Your task to perform on an android device: toggle location history Image 0: 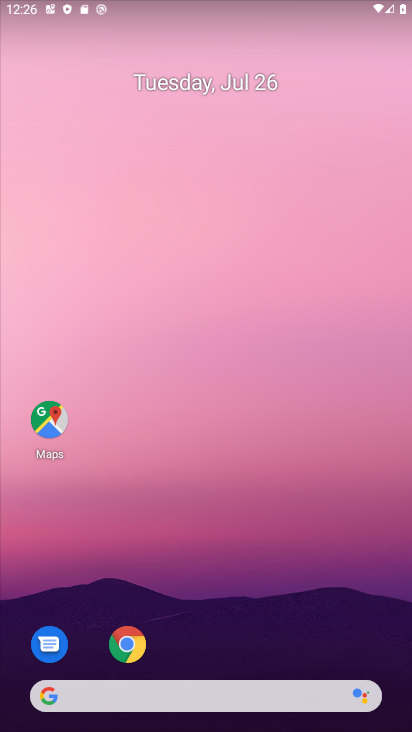
Step 0: drag from (302, 645) to (247, 58)
Your task to perform on an android device: toggle location history Image 1: 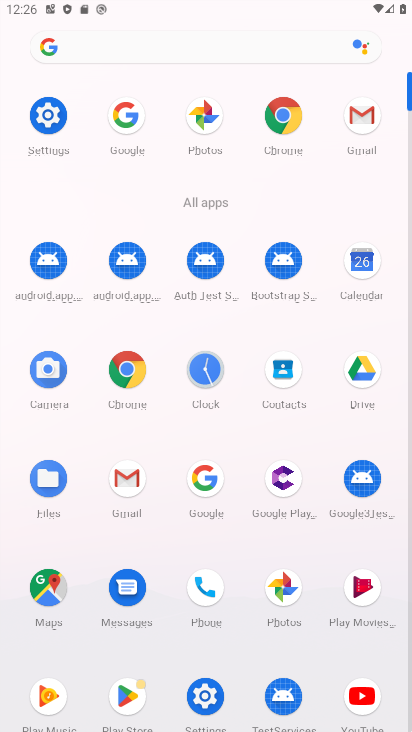
Step 1: click (48, 99)
Your task to perform on an android device: toggle location history Image 2: 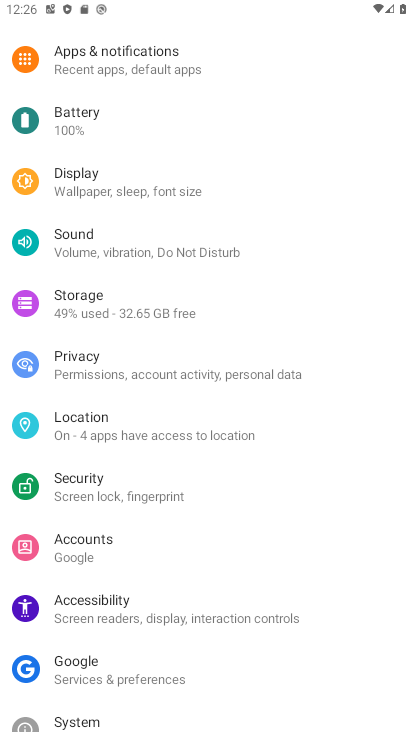
Step 2: click (199, 430)
Your task to perform on an android device: toggle location history Image 3: 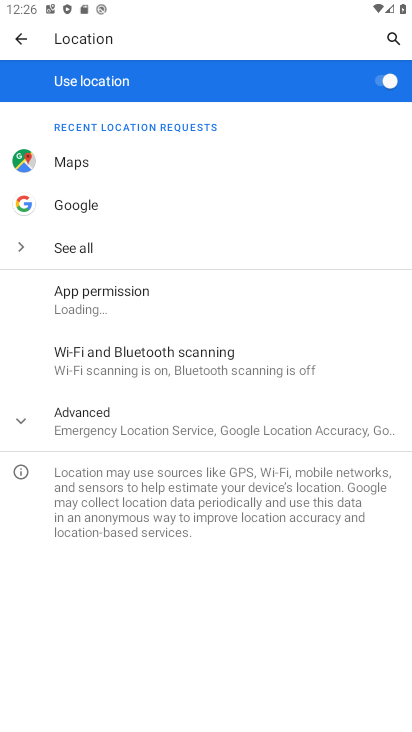
Step 3: click (213, 421)
Your task to perform on an android device: toggle location history Image 4: 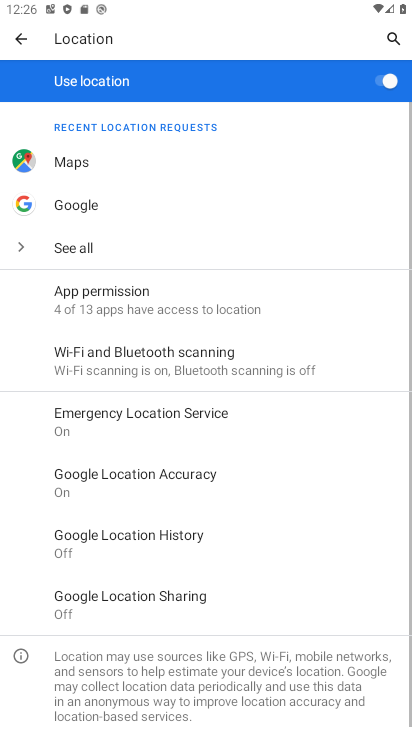
Step 4: click (182, 539)
Your task to perform on an android device: toggle location history Image 5: 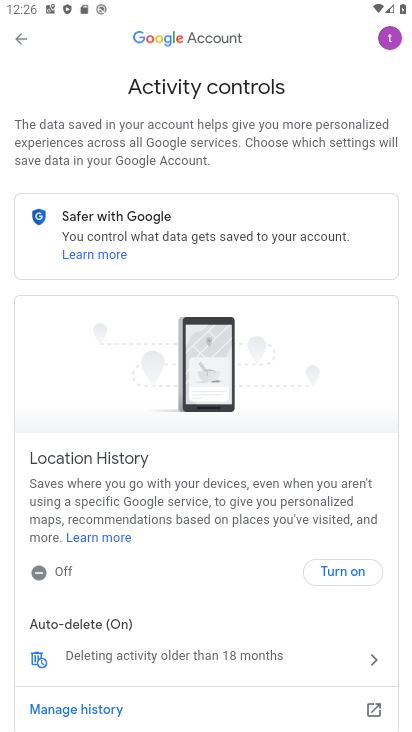
Step 5: click (350, 568)
Your task to perform on an android device: toggle location history Image 6: 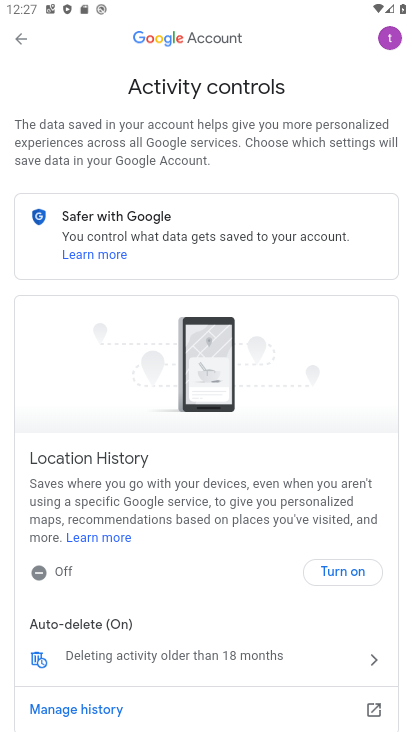
Step 6: click (350, 568)
Your task to perform on an android device: toggle location history Image 7: 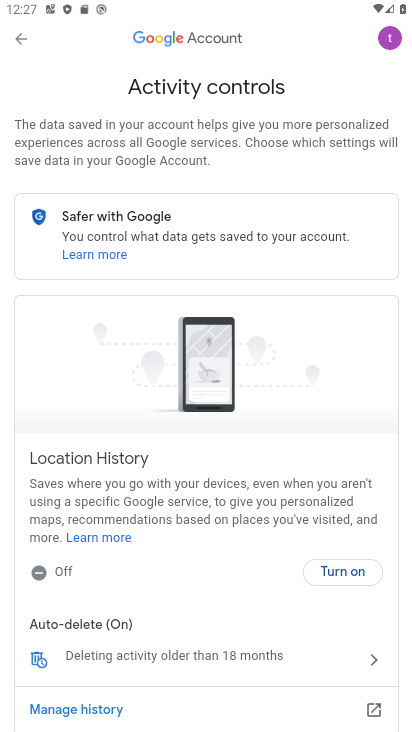
Step 7: click (350, 568)
Your task to perform on an android device: toggle location history Image 8: 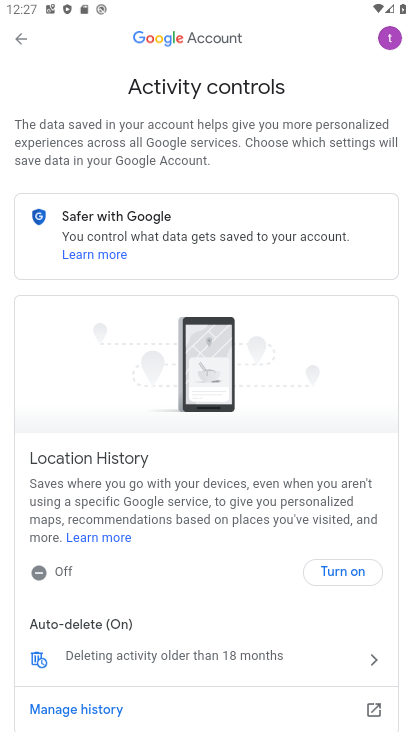
Step 8: click (350, 568)
Your task to perform on an android device: toggle location history Image 9: 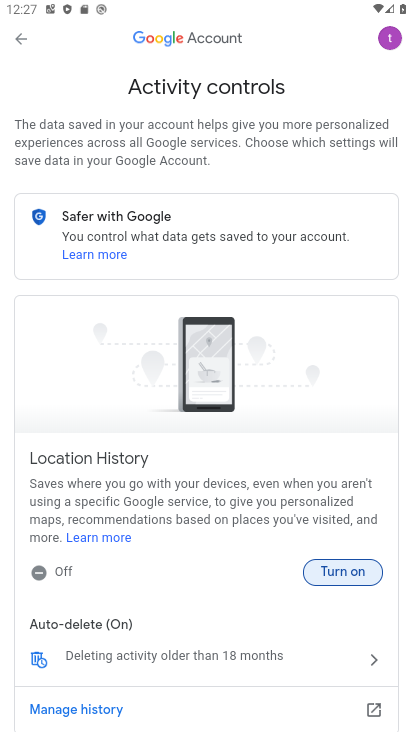
Step 9: task complete